Your task to perform on an android device: open a new tab in the chrome app Image 0: 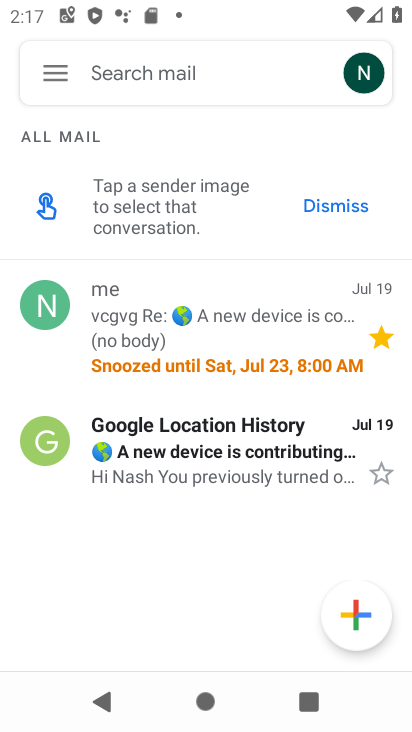
Step 0: press home button
Your task to perform on an android device: open a new tab in the chrome app Image 1: 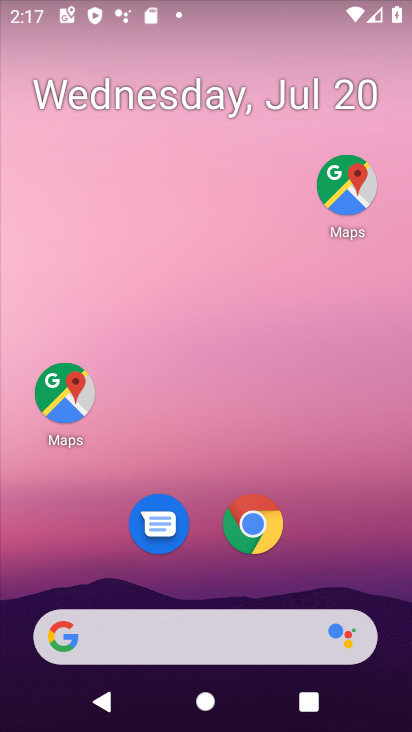
Step 1: click (264, 524)
Your task to perform on an android device: open a new tab in the chrome app Image 2: 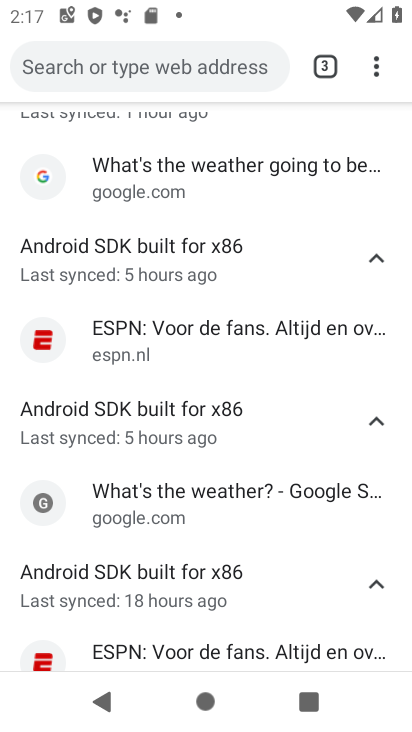
Step 2: click (369, 64)
Your task to perform on an android device: open a new tab in the chrome app Image 3: 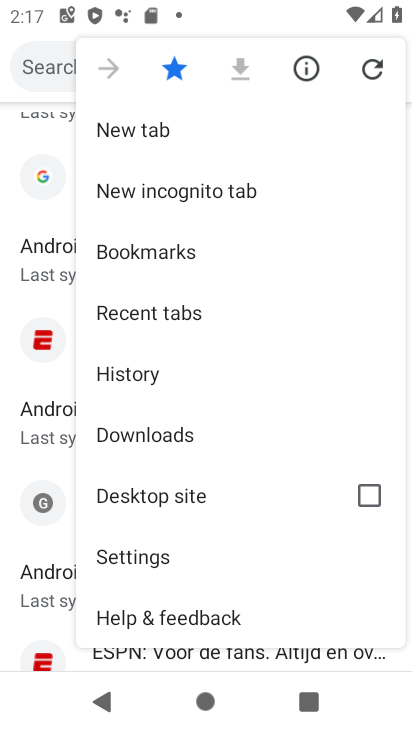
Step 3: click (306, 123)
Your task to perform on an android device: open a new tab in the chrome app Image 4: 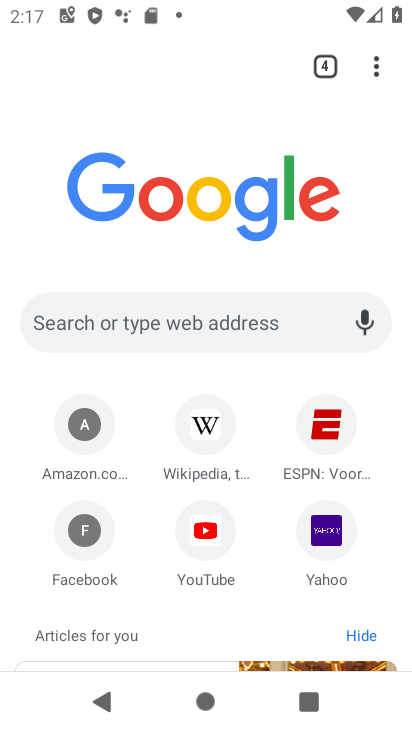
Step 4: task complete